Your task to perform on an android device: turn notification dots on Image 0: 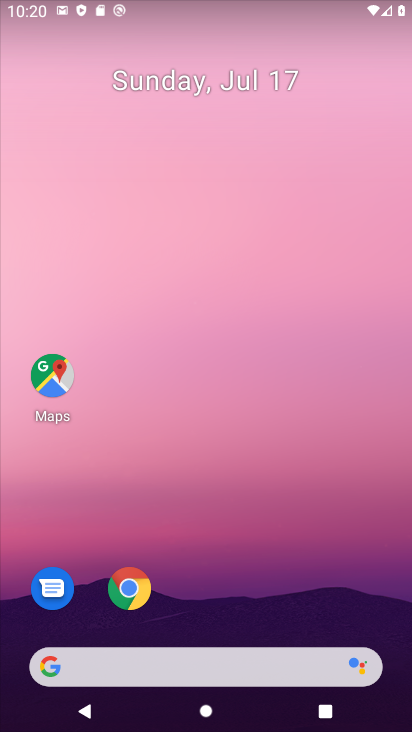
Step 0: press home button
Your task to perform on an android device: turn notification dots on Image 1: 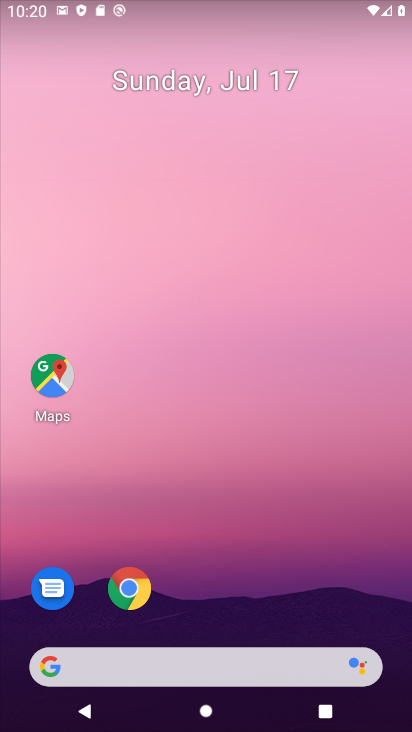
Step 1: drag from (309, 631) to (302, 50)
Your task to perform on an android device: turn notification dots on Image 2: 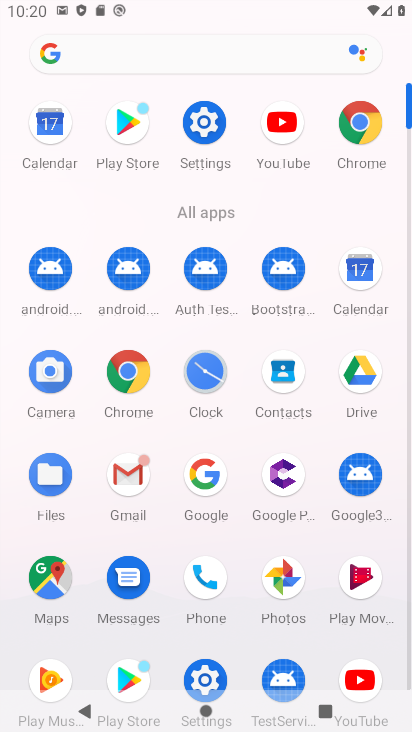
Step 2: click (204, 124)
Your task to perform on an android device: turn notification dots on Image 3: 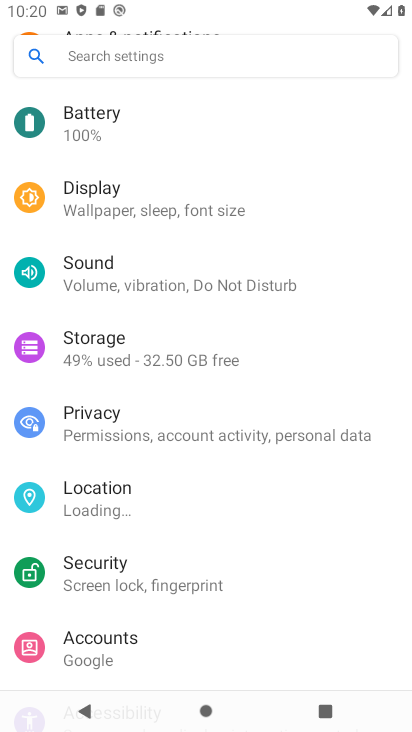
Step 3: drag from (173, 150) to (151, 457)
Your task to perform on an android device: turn notification dots on Image 4: 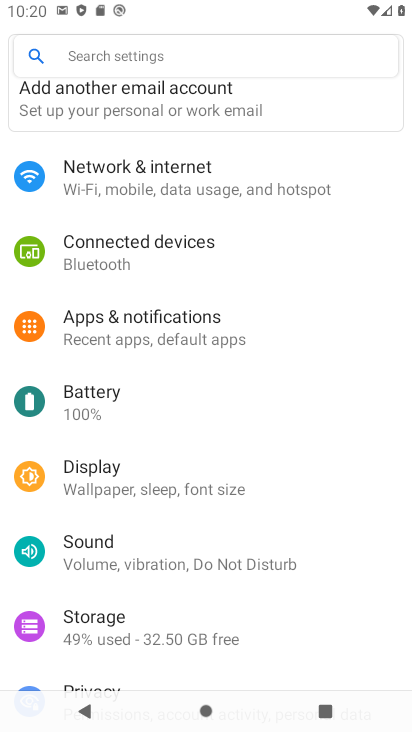
Step 4: click (126, 343)
Your task to perform on an android device: turn notification dots on Image 5: 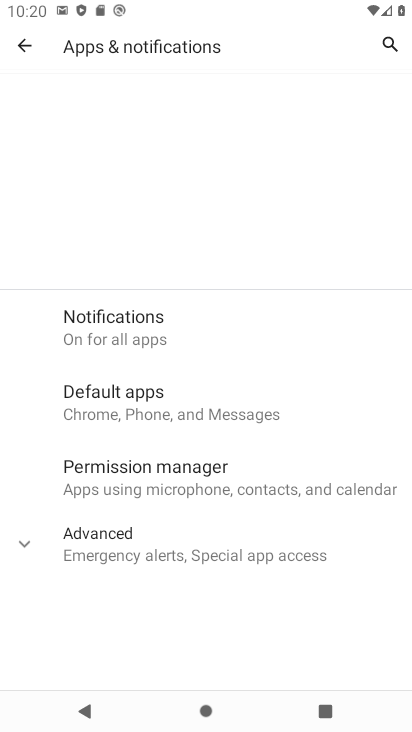
Step 5: click (151, 344)
Your task to perform on an android device: turn notification dots on Image 6: 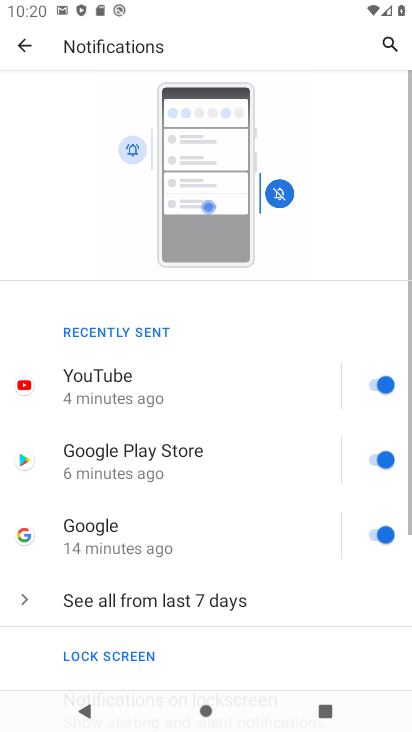
Step 6: drag from (140, 583) to (183, 242)
Your task to perform on an android device: turn notification dots on Image 7: 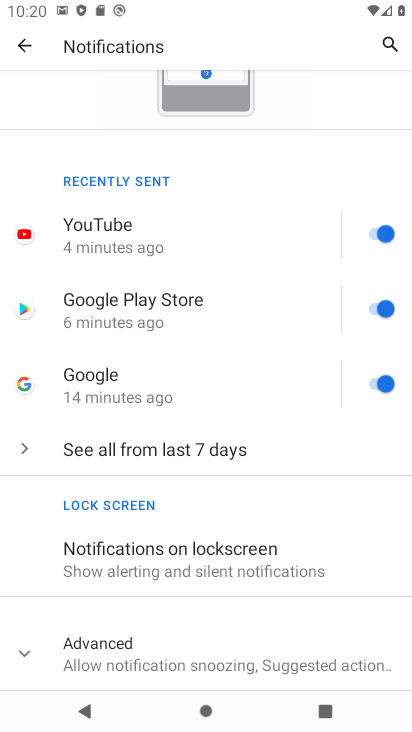
Step 7: click (183, 638)
Your task to perform on an android device: turn notification dots on Image 8: 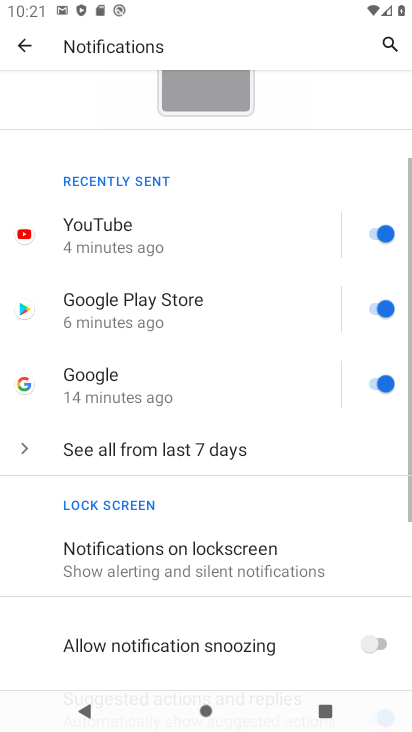
Step 8: drag from (183, 638) to (193, 135)
Your task to perform on an android device: turn notification dots on Image 9: 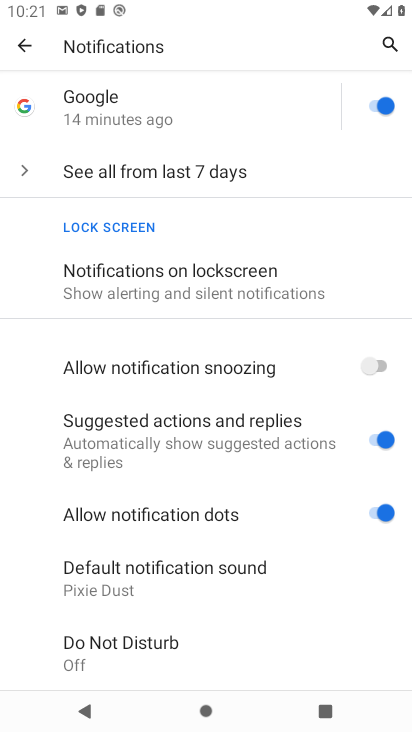
Step 9: click (162, 508)
Your task to perform on an android device: turn notification dots on Image 10: 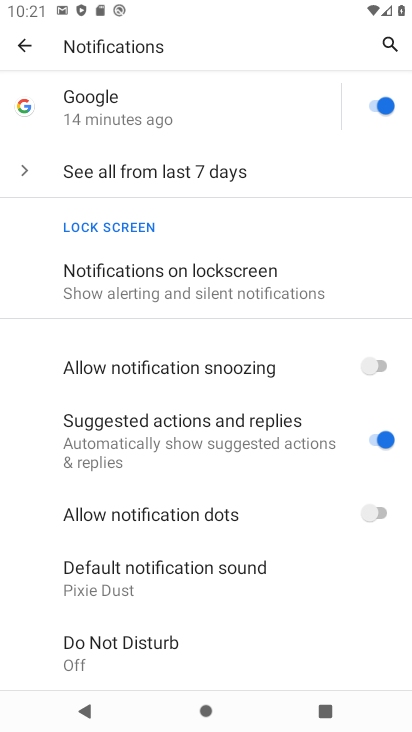
Step 10: click (342, 509)
Your task to perform on an android device: turn notification dots on Image 11: 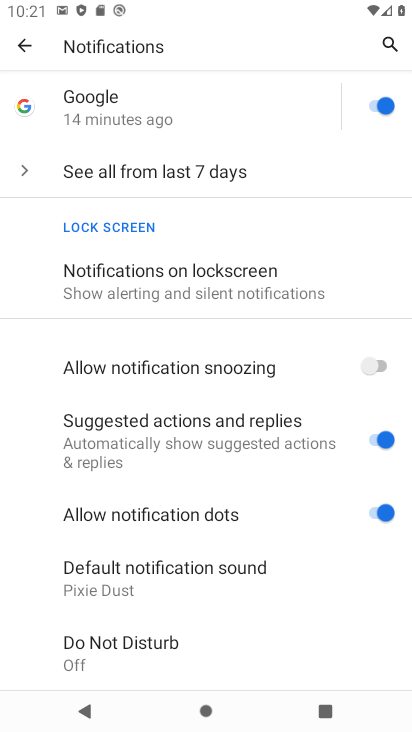
Step 11: task complete